Your task to perform on an android device: Open the calendar and show me this week's events Image 0: 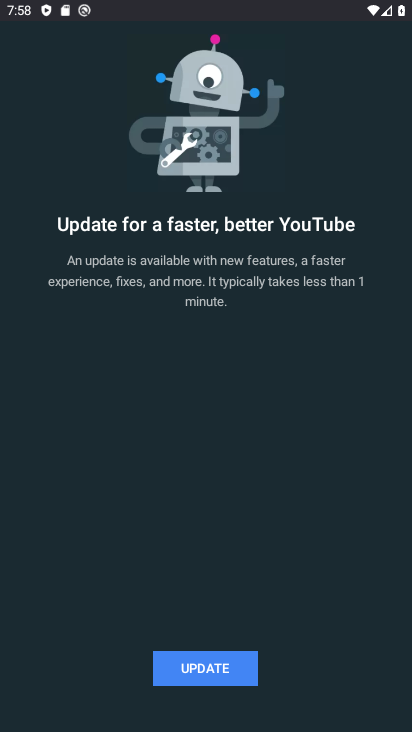
Step 0: press home button
Your task to perform on an android device: Open the calendar and show me this week's events Image 1: 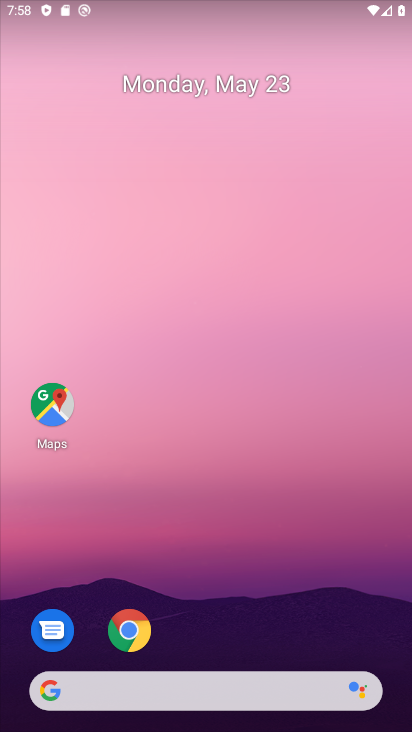
Step 1: drag from (231, 634) to (221, 288)
Your task to perform on an android device: Open the calendar and show me this week's events Image 2: 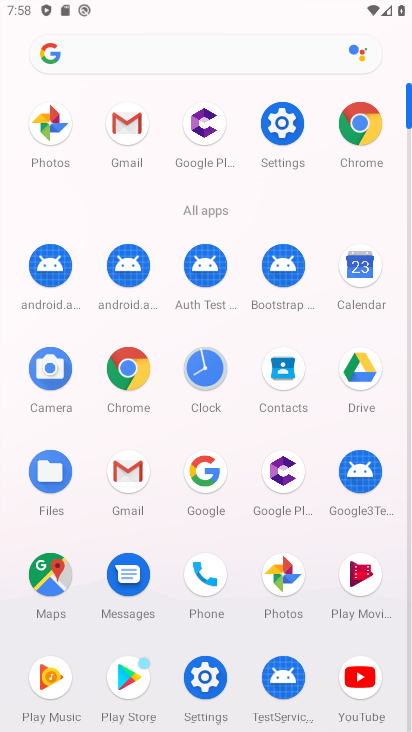
Step 2: click (370, 277)
Your task to perform on an android device: Open the calendar and show me this week's events Image 3: 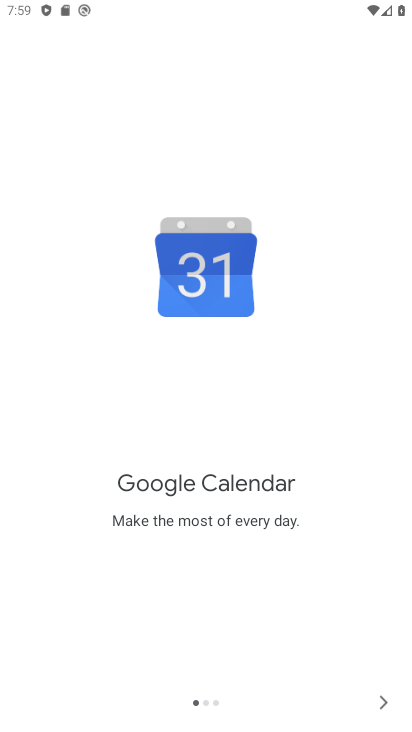
Step 3: click (379, 705)
Your task to perform on an android device: Open the calendar and show me this week's events Image 4: 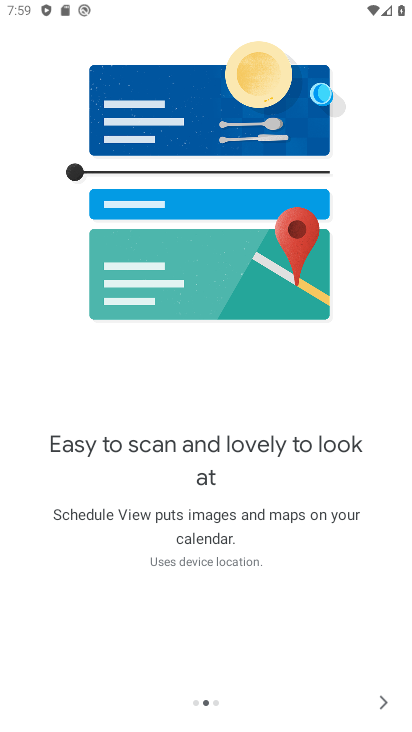
Step 4: click (379, 705)
Your task to perform on an android device: Open the calendar and show me this week's events Image 5: 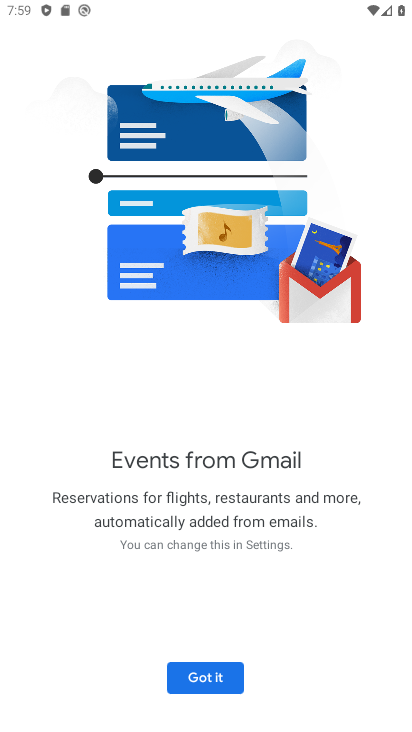
Step 5: click (210, 674)
Your task to perform on an android device: Open the calendar and show me this week's events Image 6: 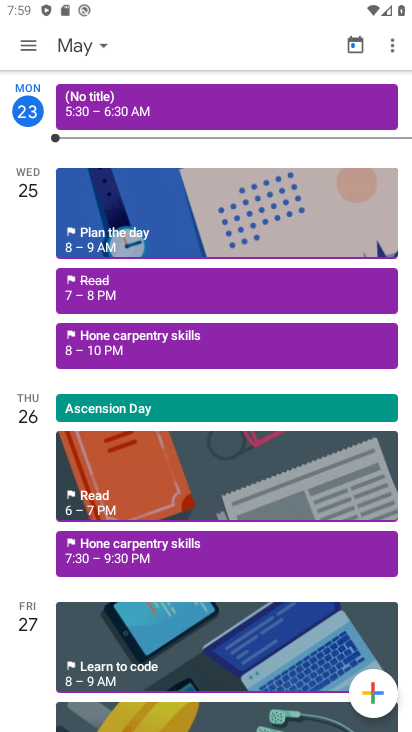
Step 6: click (26, 46)
Your task to perform on an android device: Open the calendar and show me this week's events Image 7: 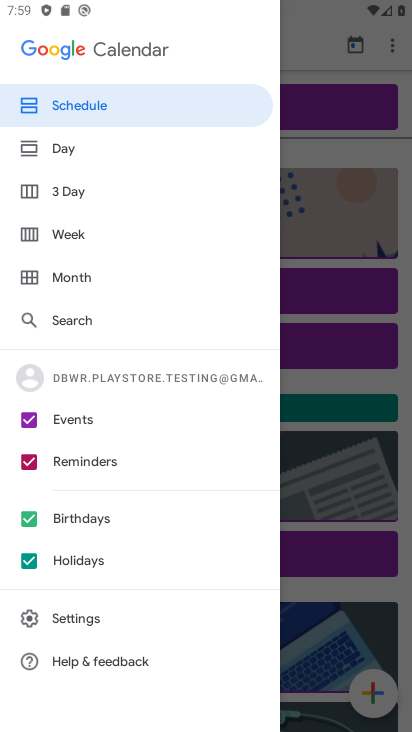
Step 7: click (84, 244)
Your task to perform on an android device: Open the calendar and show me this week's events Image 8: 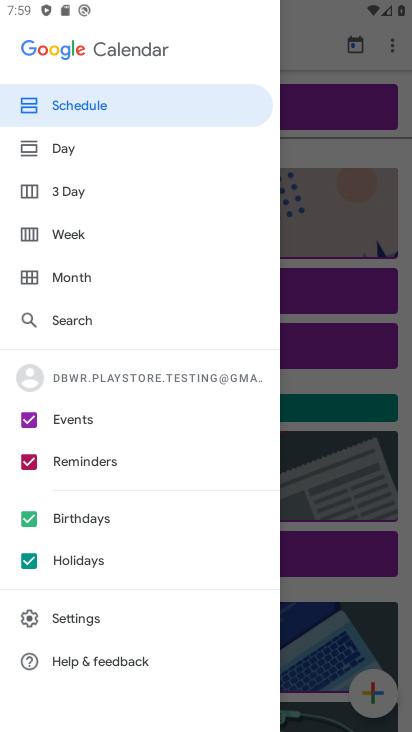
Step 8: click (71, 237)
Your task to perform on an android device: Open the calendar and show me this week's events Image 9: 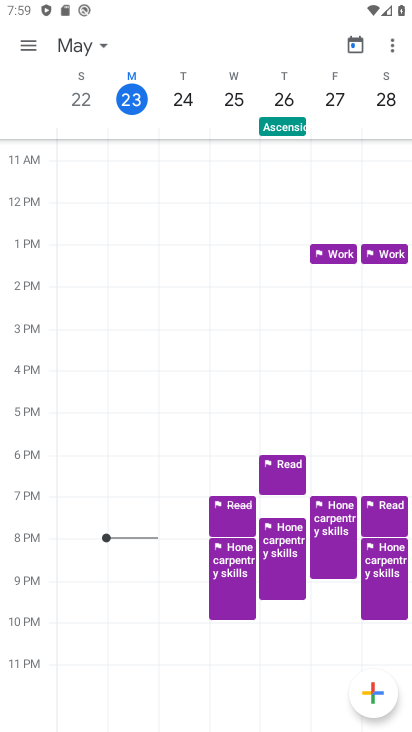
Step 9: task complete